Your task to perform on an android device: Open the calendar app, open the side menu, and click the "Day" option Image 0: 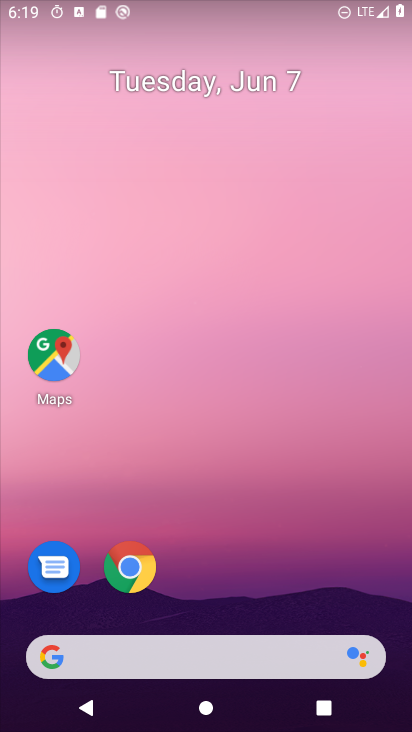
Step 0: drag from (164, 676) to (163, 87)
Your task to perform on an android device: Open the calendar app, open the side menu, and click the "Day" option Image 1: 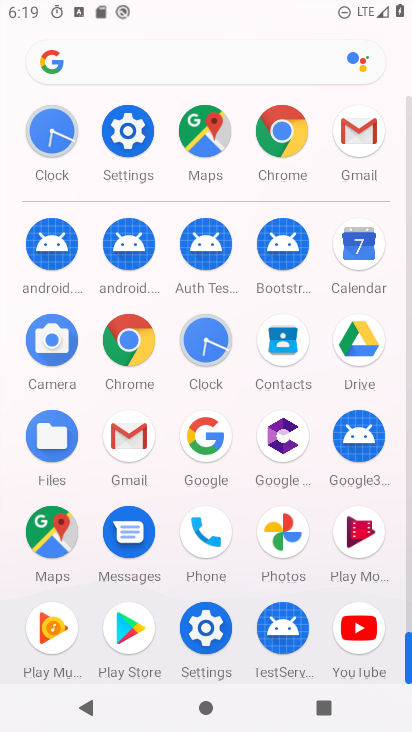
Step 1: click (343, 255)
Your task to perform on an android device: Open the calendar app, open the side menu, and click the "Day" option Image 2: 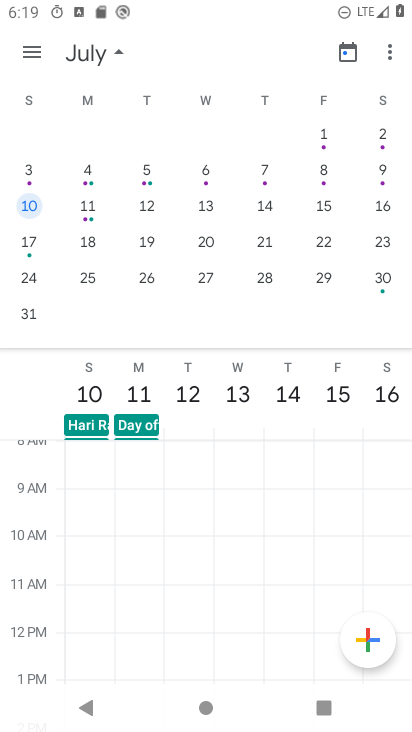
Step 2: click (31, 49)
Your task to perform on an android device: Open the calendar app, open the side menu, and click the "Day" option Image 3: 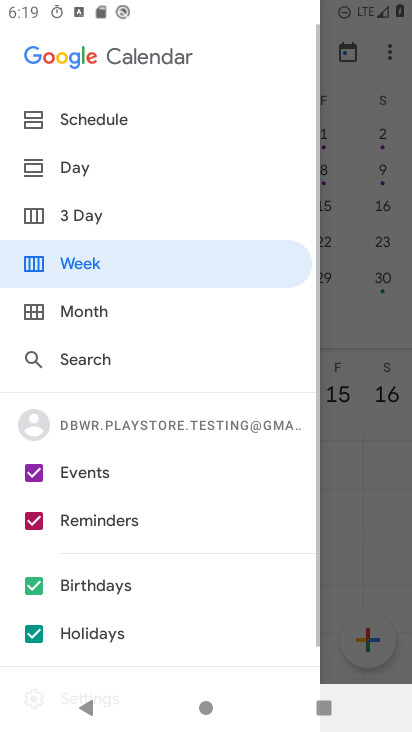
Step 3: click (87, 166)
Your task to perform on an android device: Open the calendar app, open the side menu, and click the "Day" option Image 4: 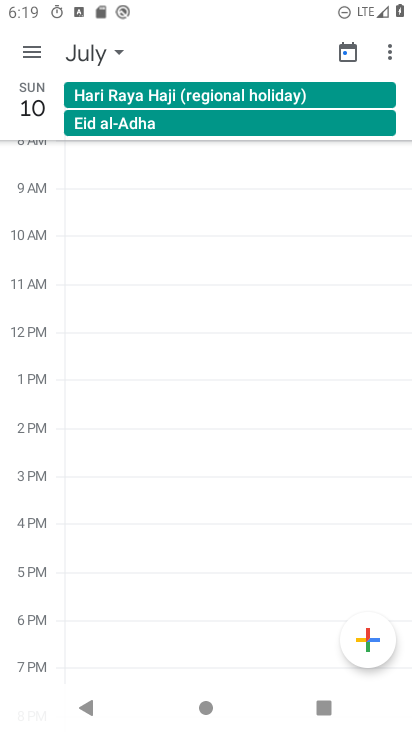
Step 4: click (121, 50)
Your task to perform on an android device: Open the calendar app, open the side menu, and click the "Day" option Image 5: 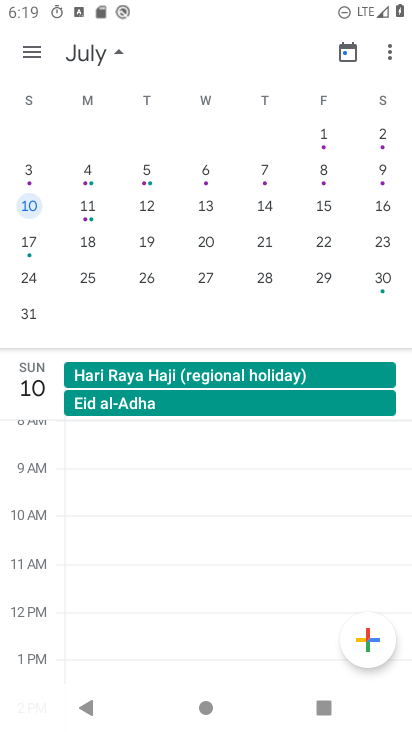
Step 5: drag from (95, 220) to (365, 221)
Your task to perform on an android device: Open the calendar app, open the side menu, and click the "Day" option Image 6: 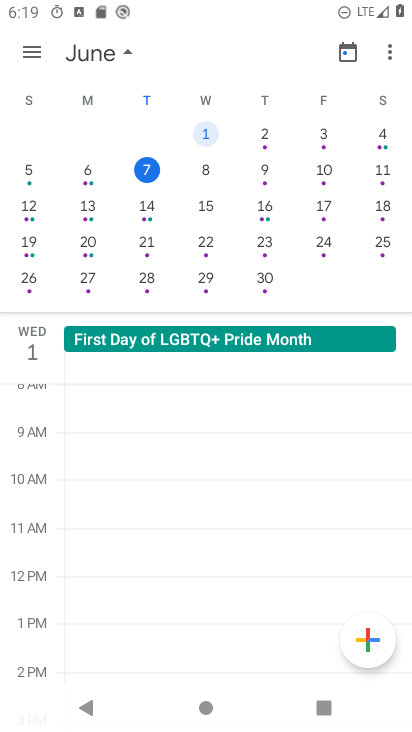
Step 6: click (150, 170)
Your task to perform on an android device: Open the calendar app, open the side menu, and click the "Day" option Image 7: 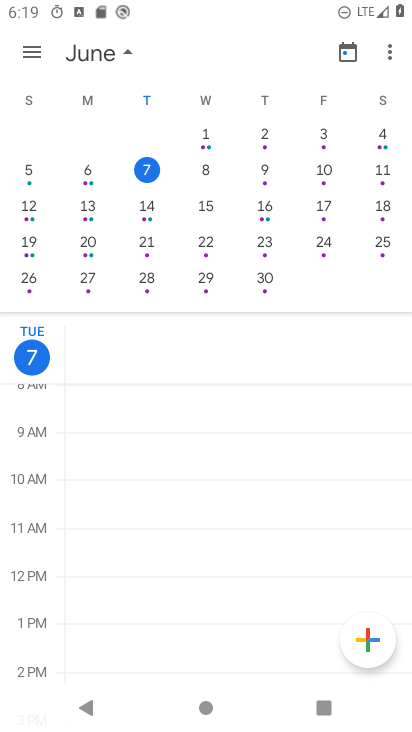
Step 7: task complete